Your task to perform on an android device: change the clock display to digital Image 0: 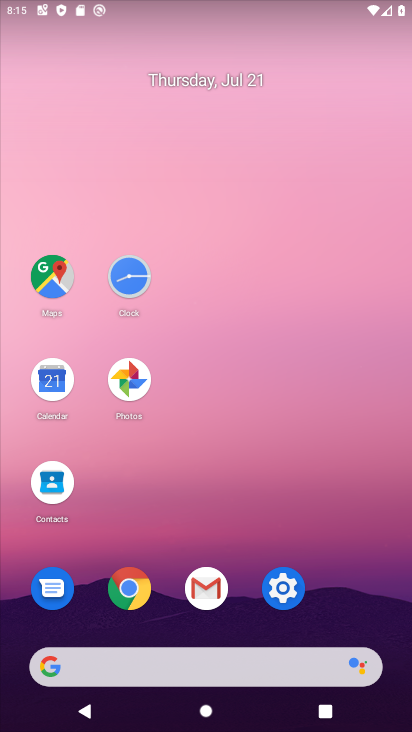
Step 0: click (125, 273)
Your task to perform on an android device: change the clock display to digital Image 1: 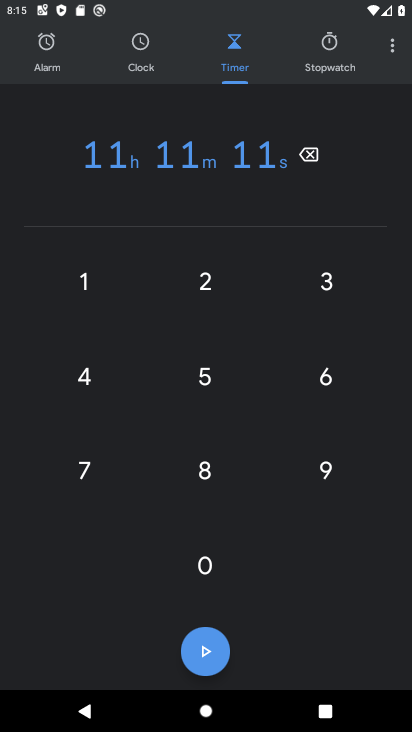
Step 1: click (394, 52)
Your task to perform on an android device: change the clock display to digital Image 2: 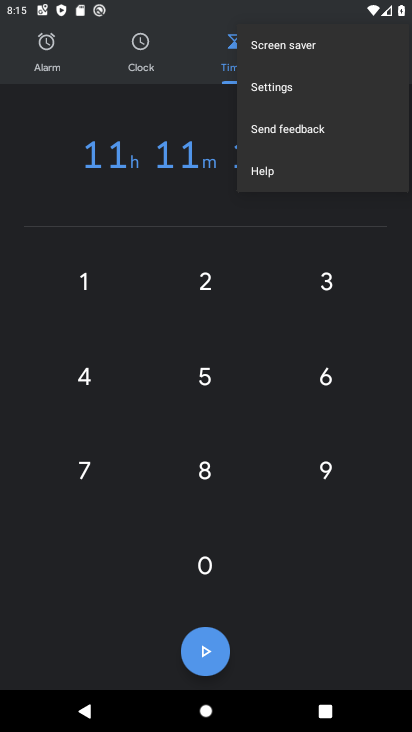
Step 2: click (271, 84)
Your task to perform on an android device: change the clock display to digital Image 3: 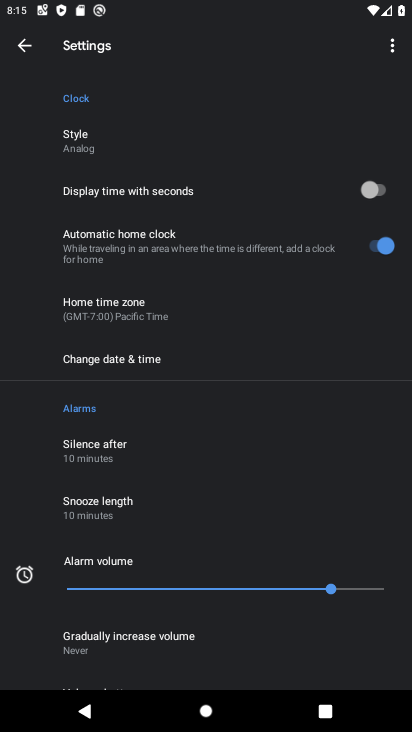
Step 3: click (78, 133)
Your task to perform on an android device: change the clock display to digital Image 4: 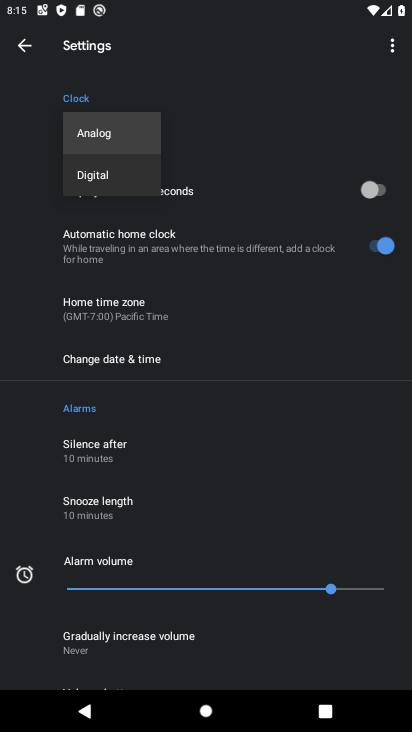
Step 4: click (100, 176)
Your task to perform on an android device: change the clock display to digital Image 5: 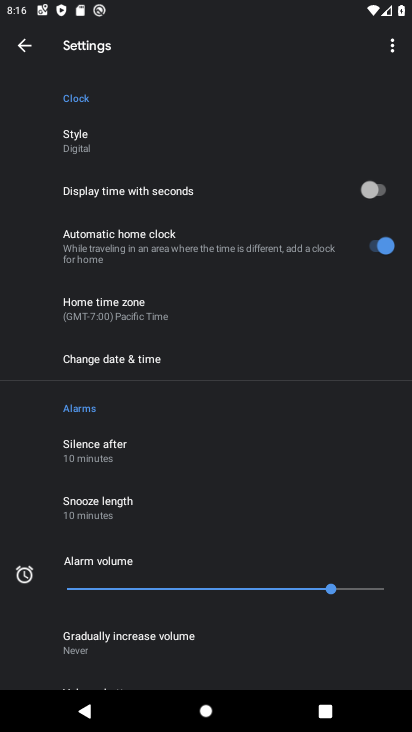
Step 5: task complete